Your task to perform on an android device: toggle data saver in the chrome app Image 0: 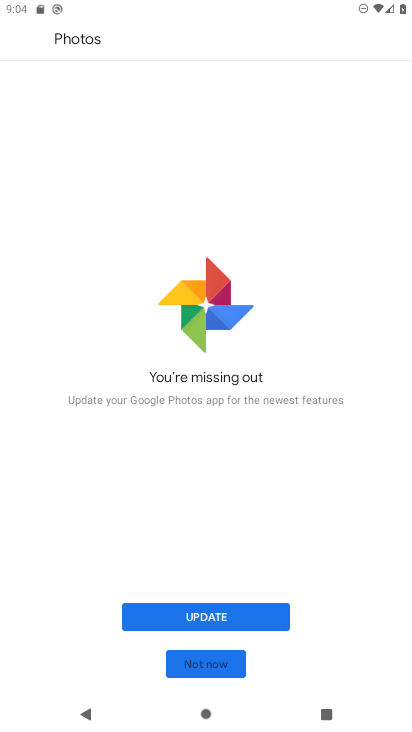
Step 0: press home button
Your task to perform on an android device: toggle data saver in the chrome app Image 1: 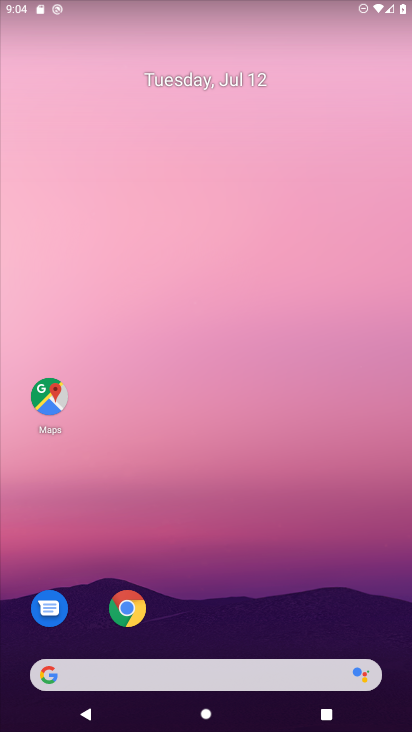
Step 1: click (112, 600)
Your task to perform on an android device: toggle data saver in the chrome app Image 2: 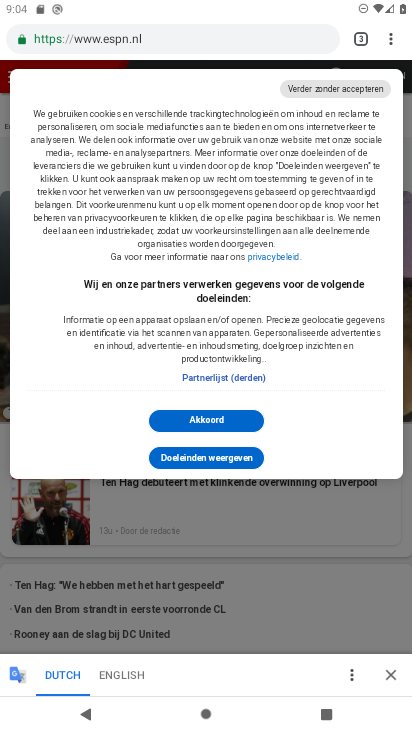
Step 2: click (402, 40)
Your task to perform on an android device: toggle data saver in the chrome app Image 3: 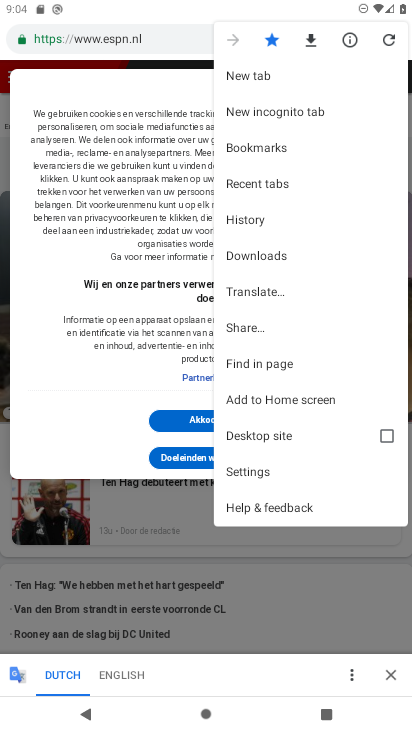
Step 3: click (258, 467)
Your task to perform on an android device: toggle data saver in the chrome app Image 4: 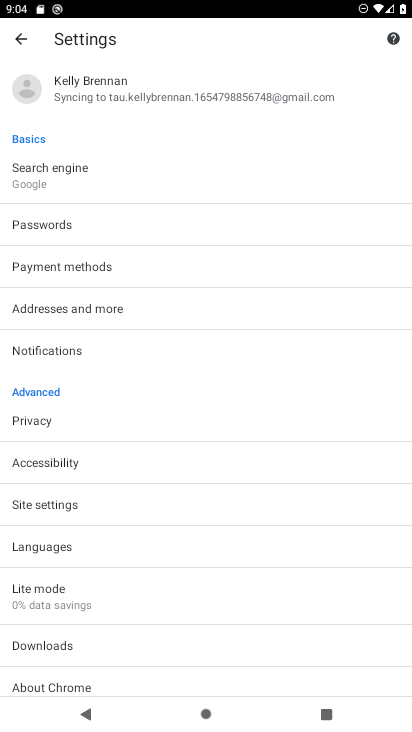
Step 4: click (98, 584)
Your task to perform on an android device: toggle data saver in the chrome app Image 5: 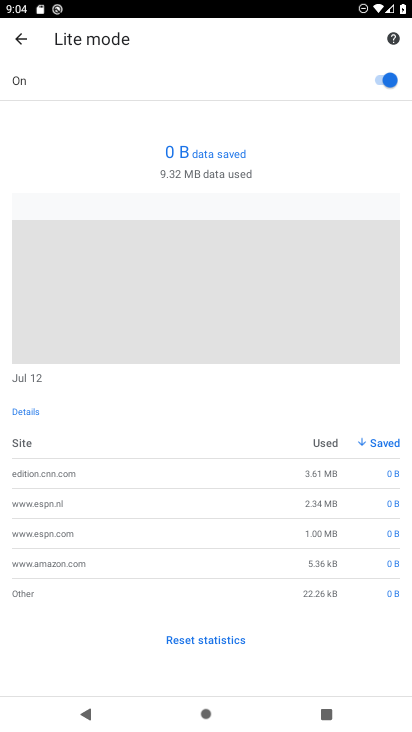
Step 5: click (386, 77)
Your task to perform on an android device: toggle data saver in the chrome app Image 6: 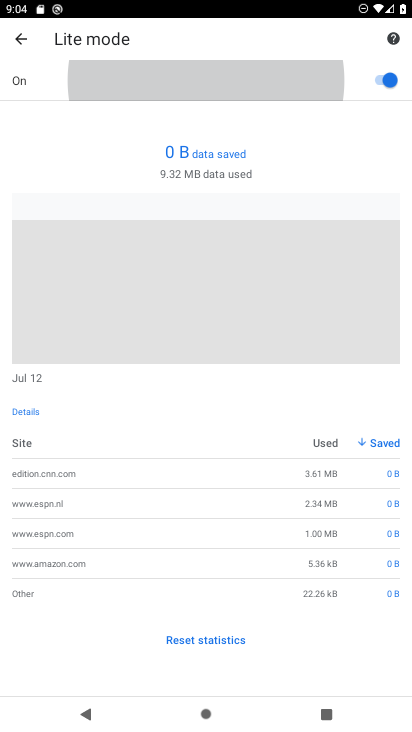
Step 6: click (386, 77)
Your task to perform on an android device: toggle data saver in the chrome app Image 7: 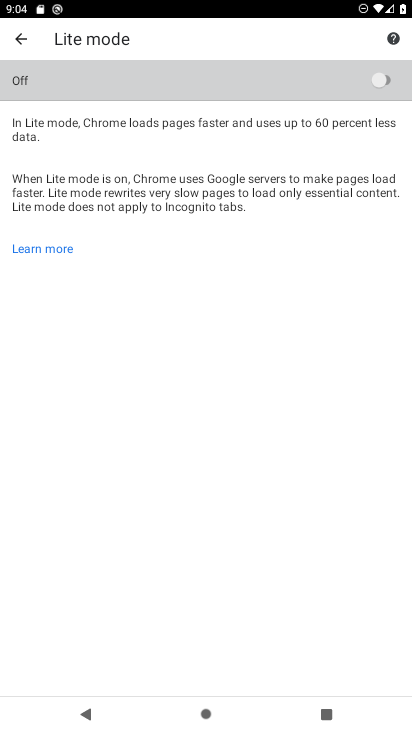
Step 7: click (386, 77)
Your task to perform on an android device: toggle data saver in the chrome app Image 8: 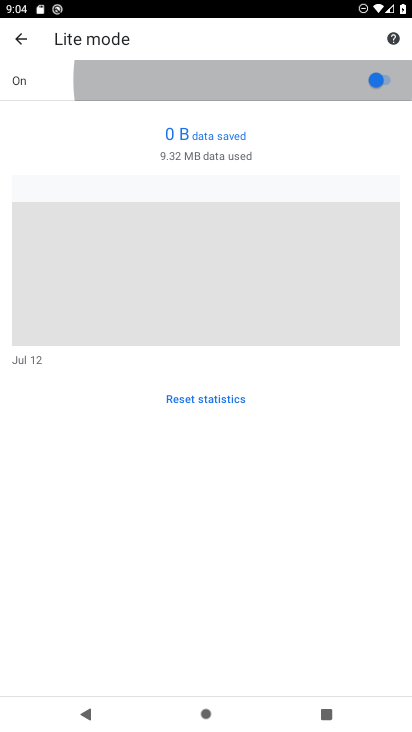
Step 8: click (386, 77)
Your task to perform on an android device: toggle data saver in the chrome app Image 9: 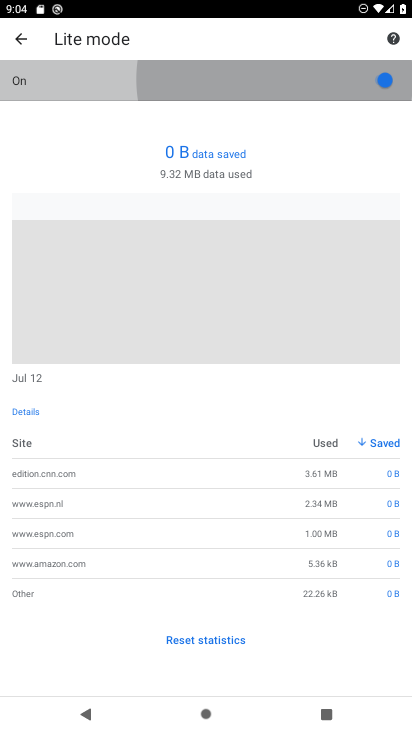
Step 9: click (386, 77)
Your task to perform on an android device: toggle data saver in the chrome app Image 10: 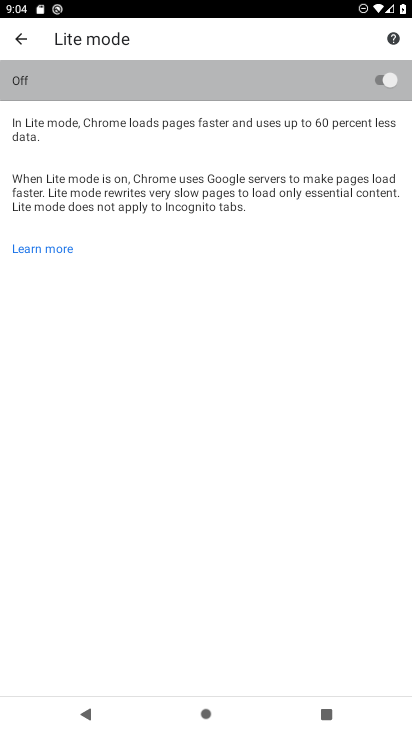
Step 10: click (386, 77)
Your task to perform on an android device: toggle data saver in the chrome app Image 11: 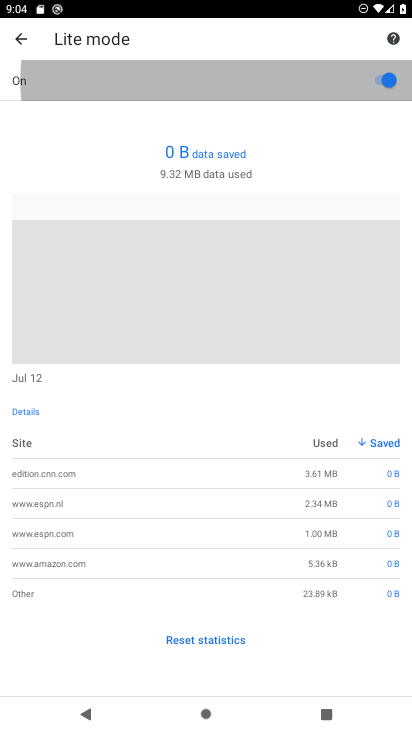
Step 11: click (386, 77)
Your task to perform on an android device: toggle data saver in the chrome app Image 12: 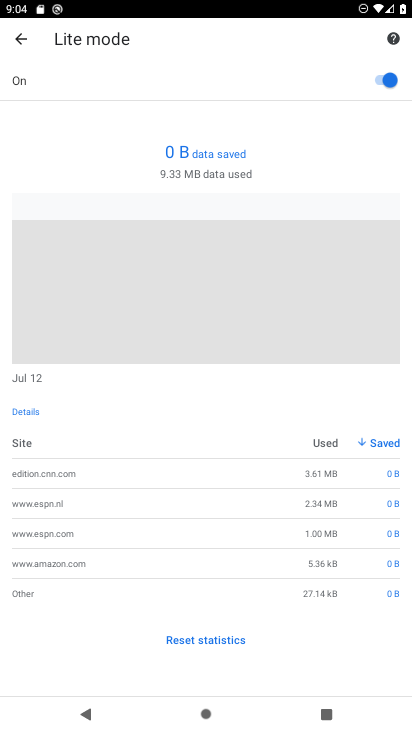
Step 12: task complete